Your task to perform on an android device: Open settings on Google Maps Image 0: 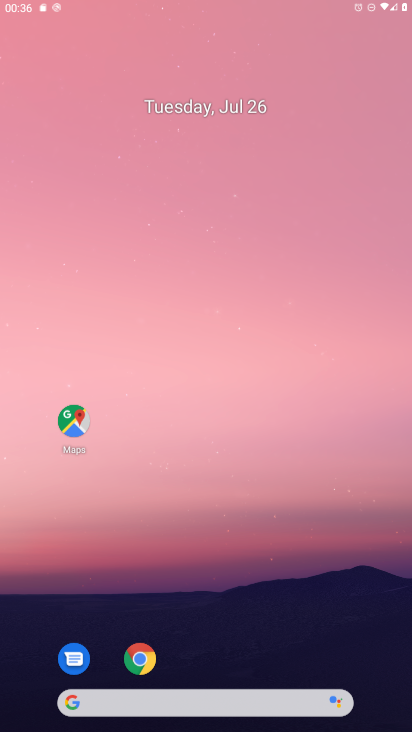
Step 0: press home button
Your task to perform on an android device: Open settings on Google Maps Image 1: 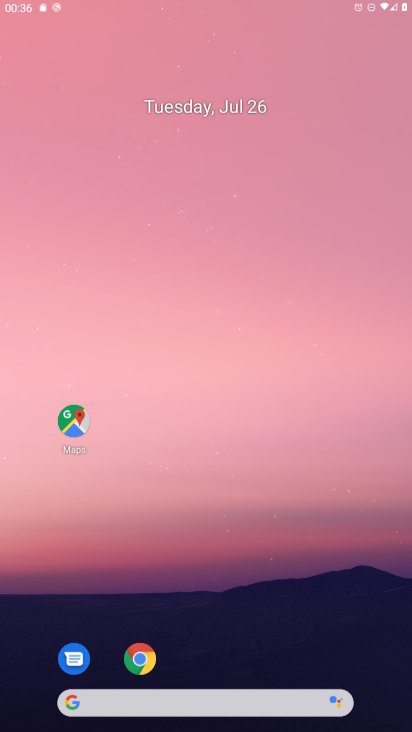
Step 1: click (316, 296)
Your task to perform on an android device: Open settings on Google Maps Image 2: 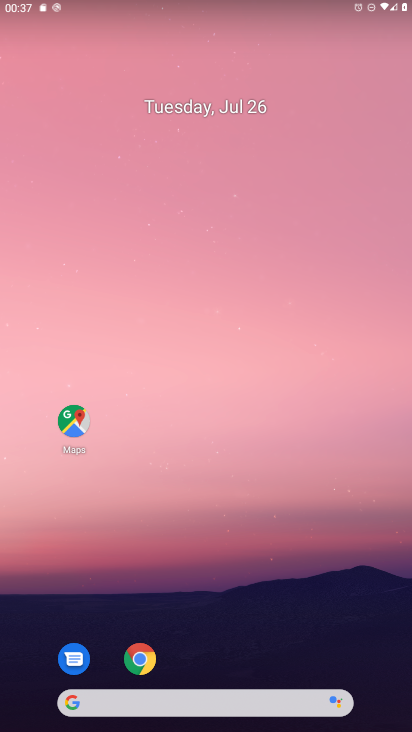
Step 2: click (91, 422)
Your task to perform on an android device: Open settings on Google Maps Image 3: 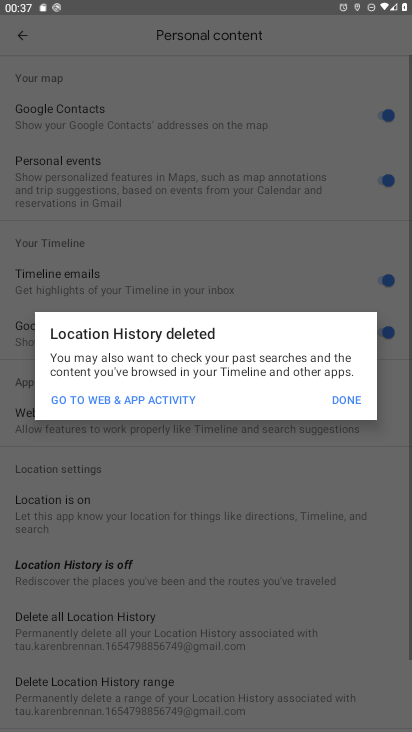
Step 3: click (354, 386)
Your task to perform on an android device: Open settings on Google Maps Image 4: 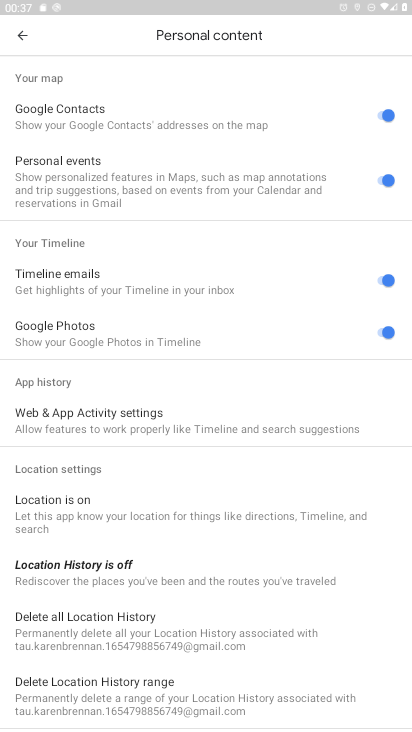
Step 4: click (12, 23)
Your task to perform on an android device: Open settings on Google Maps Image 5: 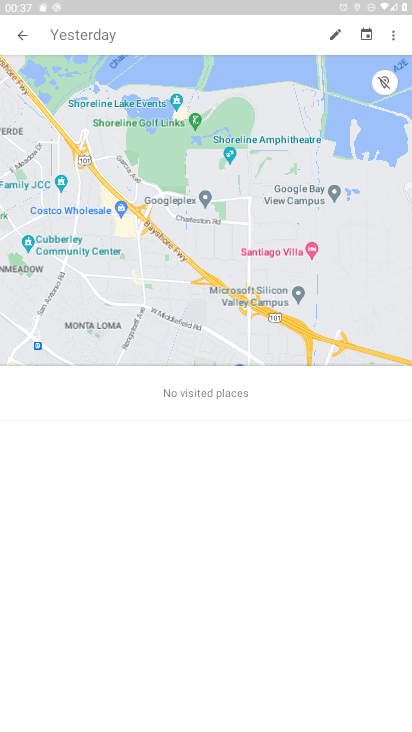
Step 5: click (25, 34)
Your task to perform on an android device: Open settings on Google Maps Image 6: 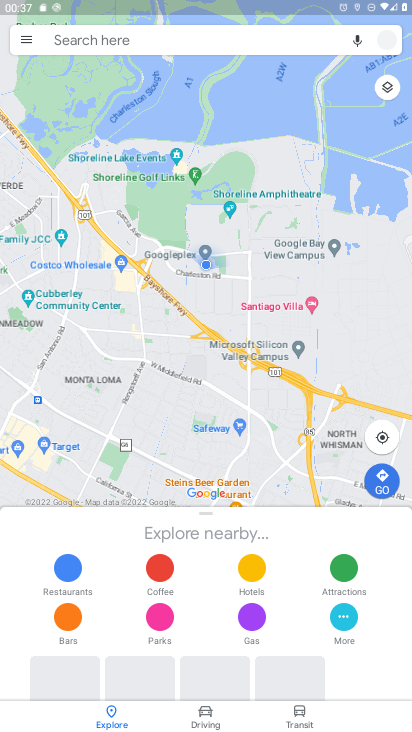
Step 6: click (25, 34)
Your task to perform on an android device: Open settings on Google Maps Image 7: 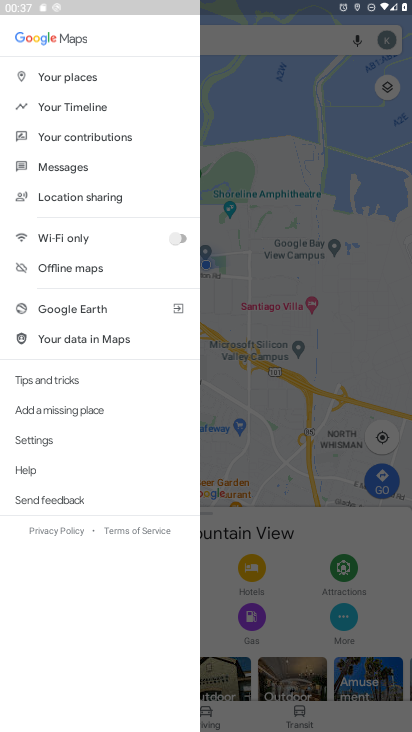
Step 7: click (60, 442)
Your task to perform on an android device: Open settings on Google Maps Image 8: 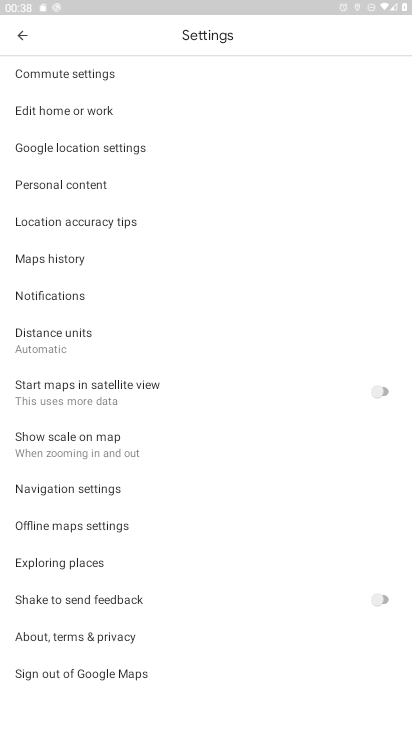
Step 8: task complete